Your task to perform on an android device: Open the Play Movies app and select the watchlist tab. Image 0: 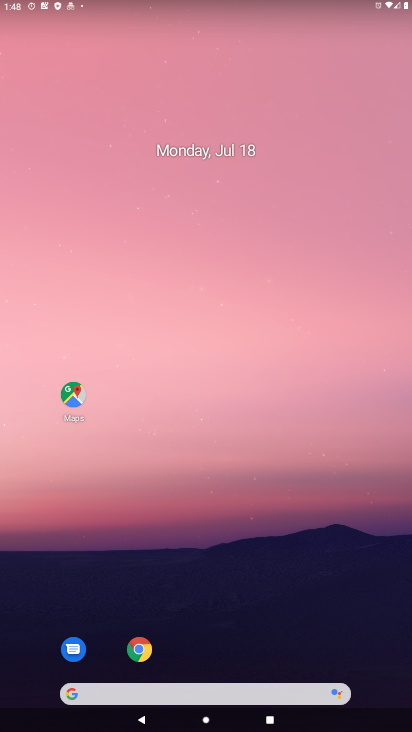
Step 0: drag from (205, 595) to (141, 22)
Your task to perform on an android device: Open the Play Movies app and select the watchlist tab. Image 1: 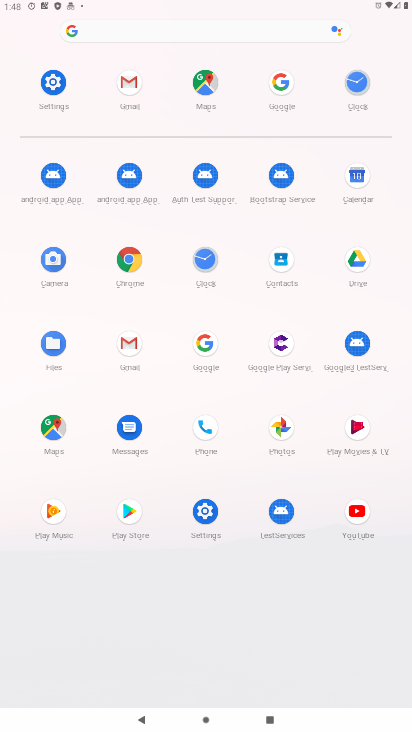
Step 1: click (355, 436)
Your task to perform on an android device: Open the Play Movies app and select the watchlist tab. Image 2: 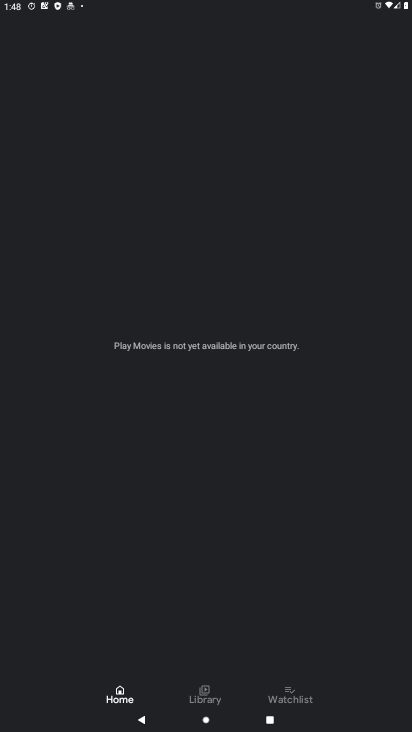
Step 2: click (289, 675)
Your task to perform on an android device: Open the Play Movies app and select the watchlist tab. Image 3: 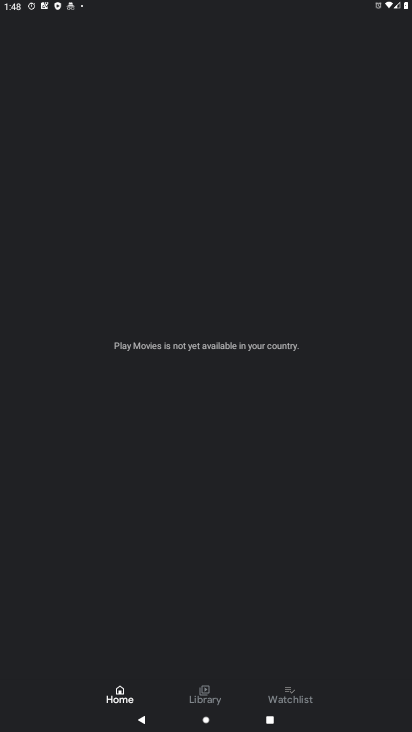
Step 3: click (291, 677)
Your task to perform on an android device: Open the Play Movies app and select the watchlist tab. Image 4: 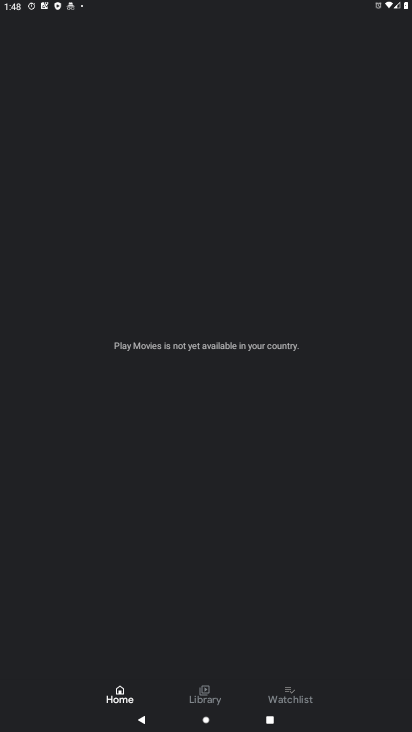
Step 4: click (298, 687)
Your task to perform on an android device: Open the Play Movies app and select the watchlist tab. Image 5: 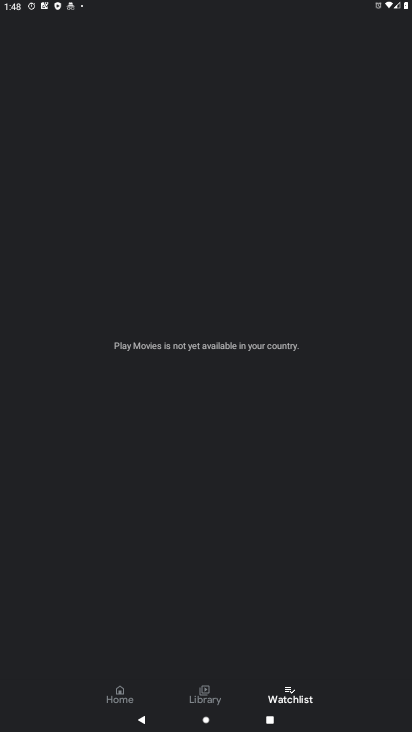
Step 5: click (294, 696)
Your task to perform on an android device: Open the Play Movies app and select the watchlist tab. Image 6: 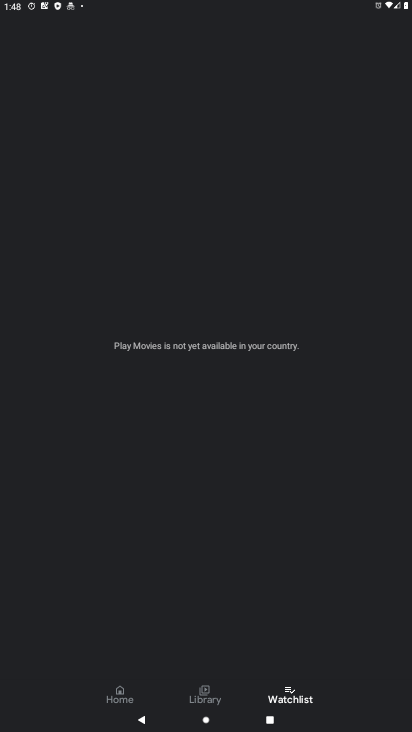
Step 6: task complete